Your task to perform on an android device: Search for pizza restaurants on Maps Image 0: 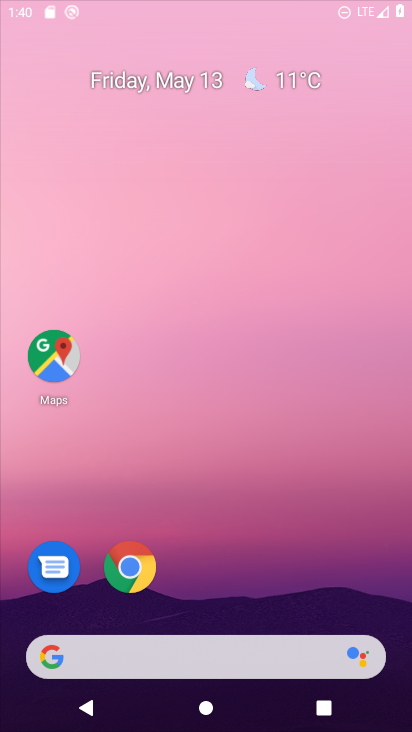
Step 0: drag from (212, 333) to (235, 7)
Your task to perform on an android device: Search for pizza restaurants on Maps Image 1: 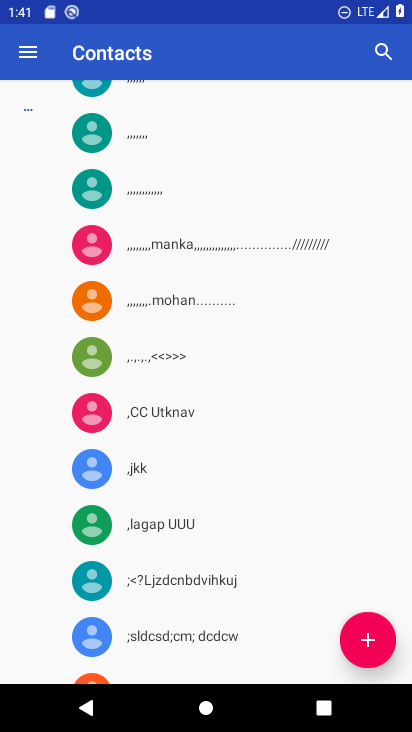
Step 1: press home button
Your task to perform on an android device: Search for pizza restaurants on Maps Image 2: 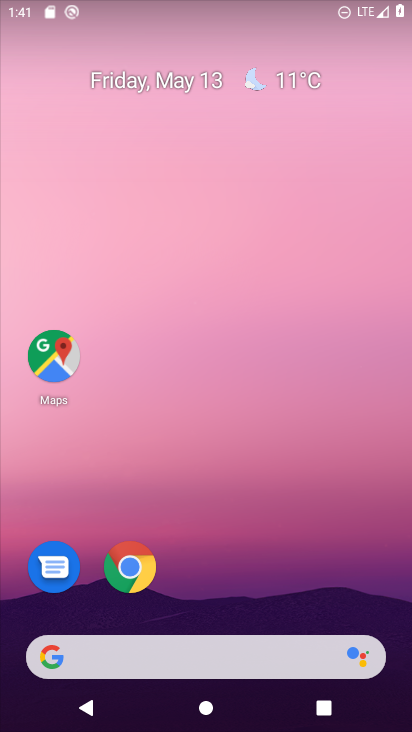
Step 2: drag from (217, 610) to (257, 15)
Your task to perform on an android device: Search for pizza restaurants on Maps Image 3: 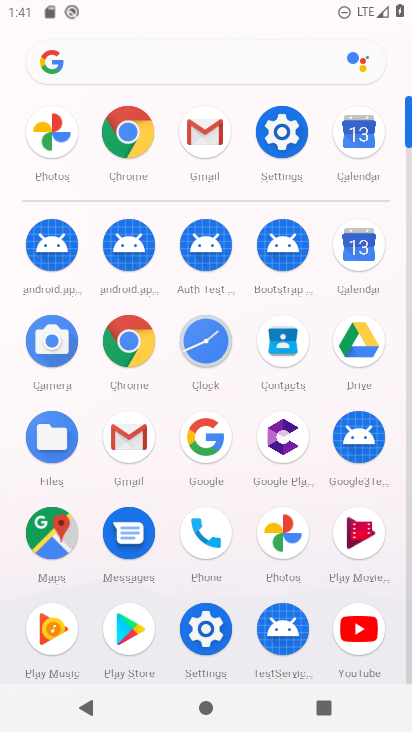
Step 3: click (55, 530)
Your task to perform on an android device: Search for pizza restaurants on Maps Image 4: 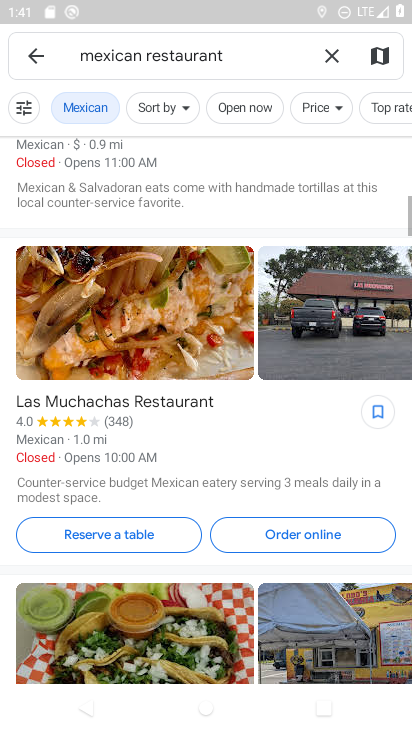
Step 4: click (332, 50)
Your task to perform on an android device: Search for pizza restaurants on Maps Image 5: 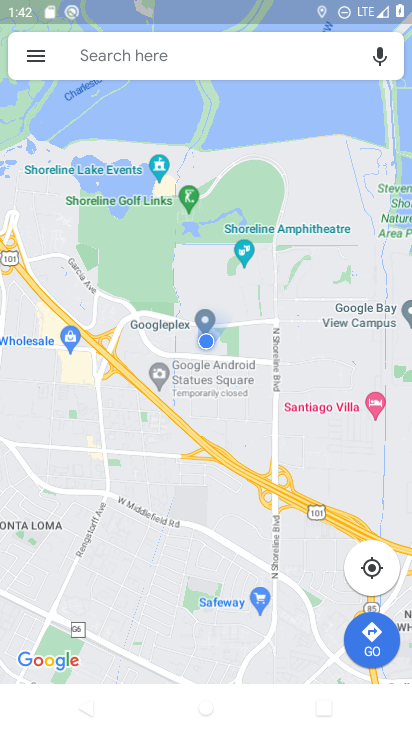
Step 5: click (159, 48)
Your task to perform on an android device: Search for pizza restaurants on Maps Image 6: 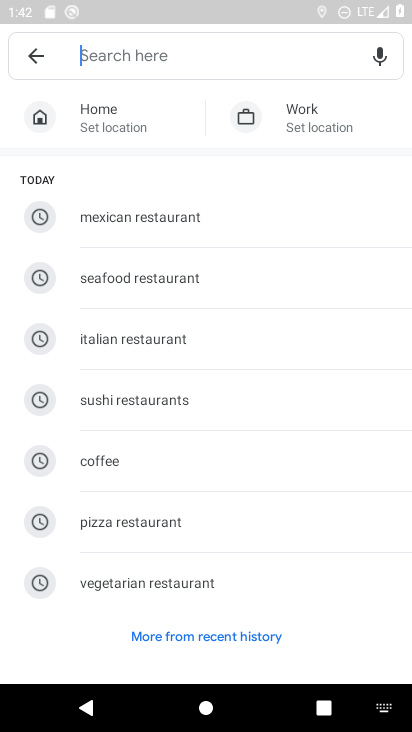
Step 6: click (133, 519)
Your task to perform on an android device: Search for pizza restaurants on Maps Image 7: 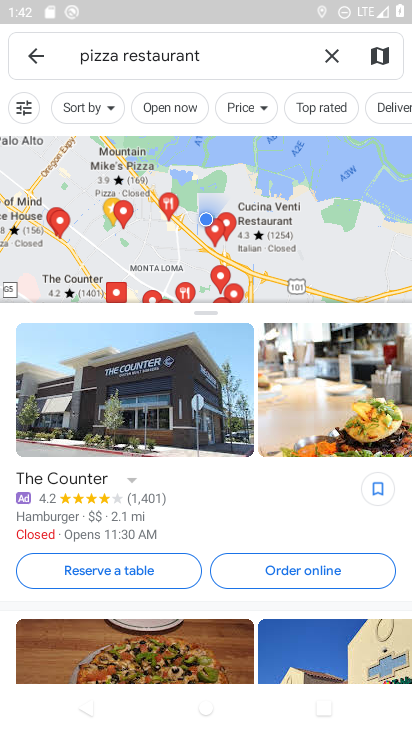
Step 7: task complete